Your task to perform on an android device: turn off location Image 0: 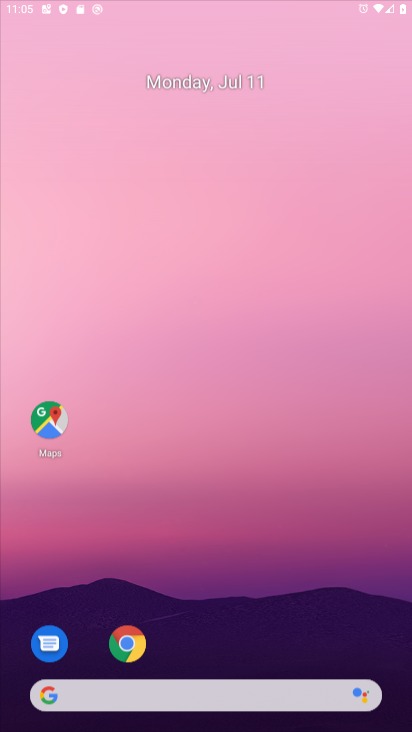
Step 0: press home button
Your task to perform on an android device: turn off location Image 1: 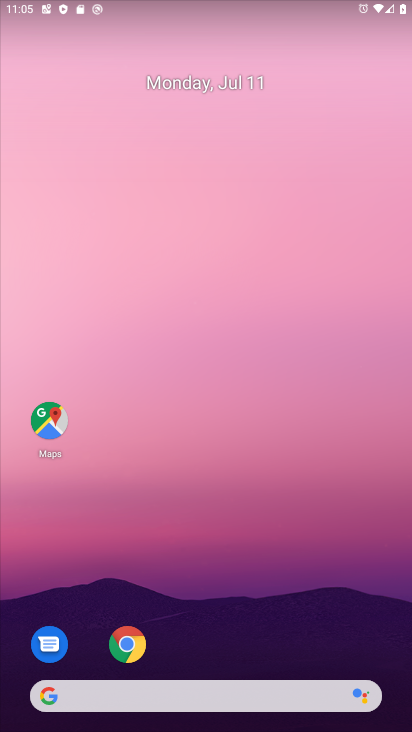
Step 1: drag from (237, 664) to (225, 1)
Your task to perform on an android device: turn off location Image 2: 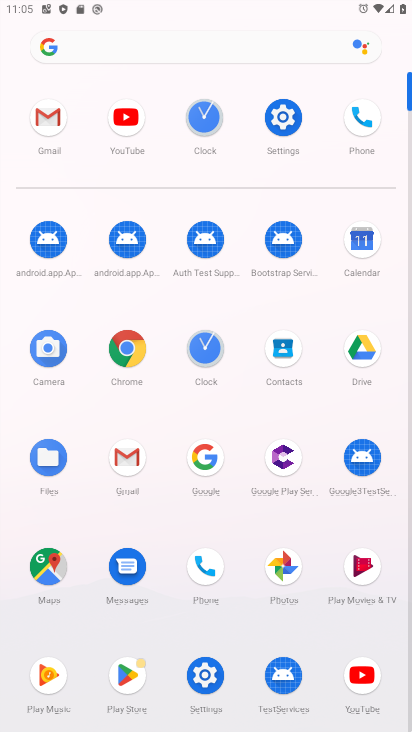
Step 2: click (278, 111)
Your task to perform on an android device: turn off location Image 3: 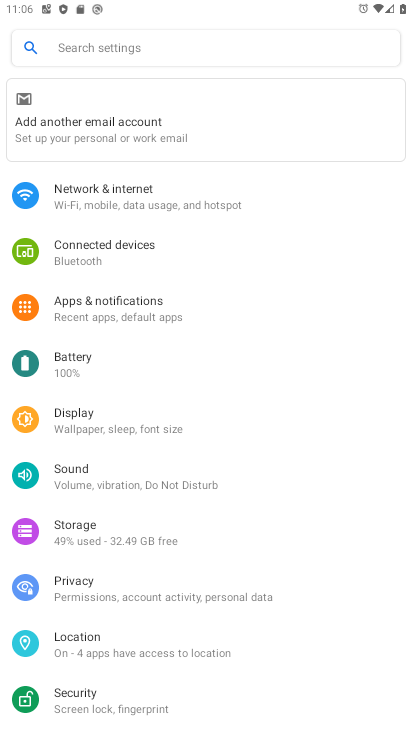
Step 3: click (109, 638)
Your task to perform on an android device: turn off location Image 4: 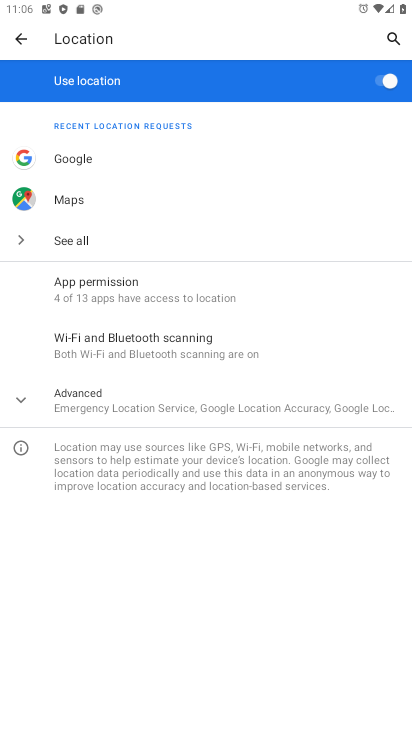
Step 4: click (386, 74)
Your task to perform on an android device: turn off location Image 5: 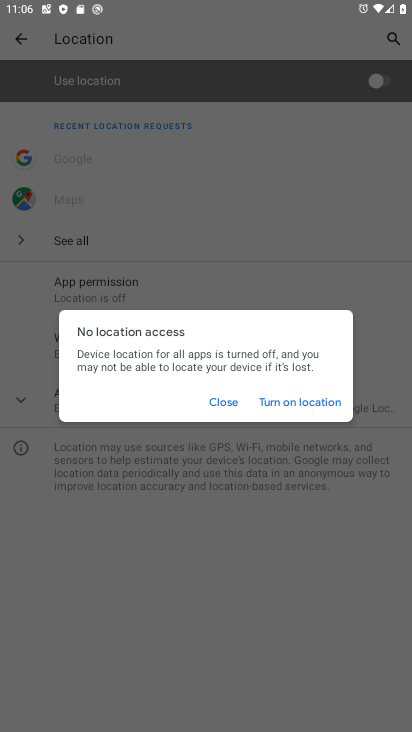
Step 5: click (224, 403)
Your task to perform on an android device: turn off location Image 6: 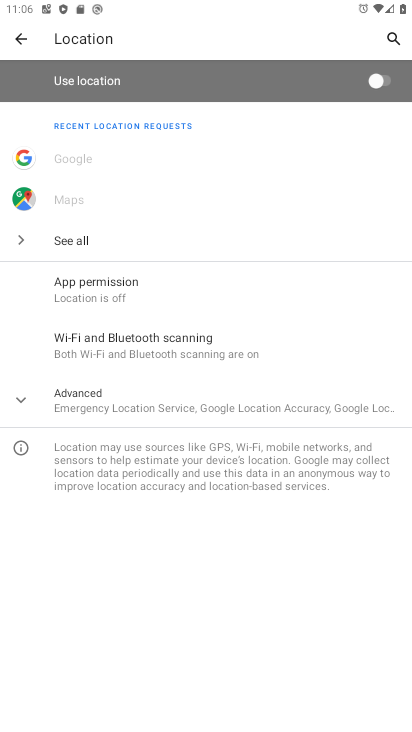
Step 6: task complete